Your task to perform on an android device: Open sound settings Image 0: 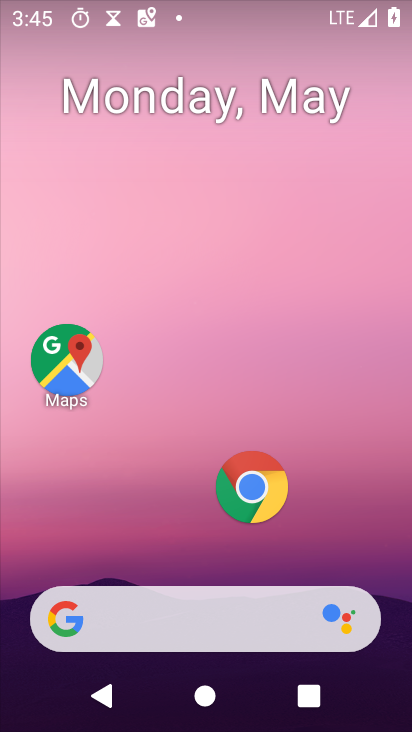
Step 0: drag from (170, 553) to (258, 71)
Your task to perform on an android device: Open sound settings Image 1: 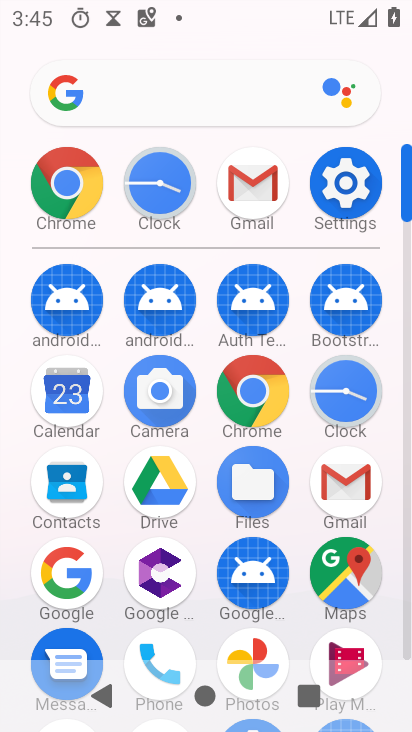
Step 1: click (348, 173)
Your task to perform on an android device: Open sound settings Image 2: 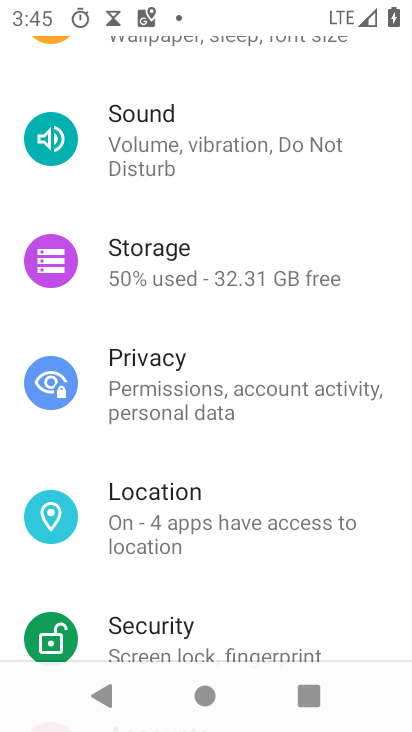
Step 2: click (163, 136)
Your task to perform on an android device: Open sound settings Image 3: 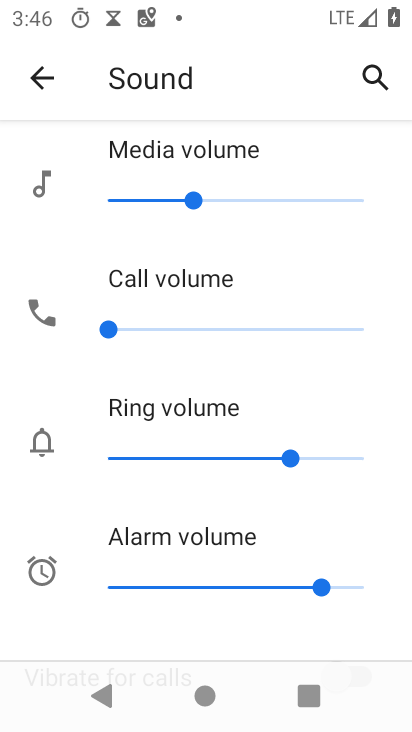
Step 3: task complete